Your task to perform on an android device: Search for sushi restaurants on Maps Image 0: 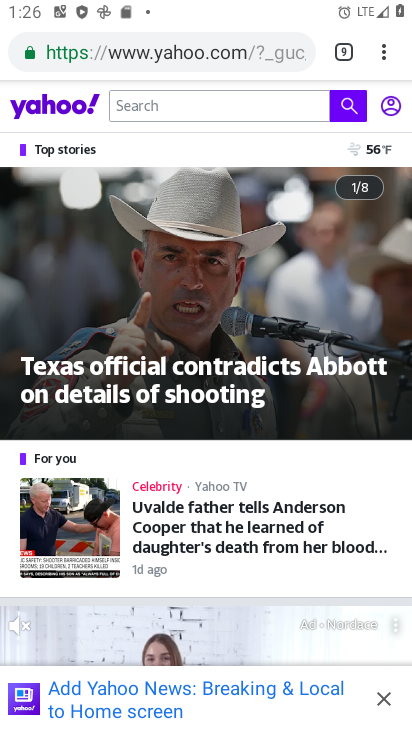
Step 0: drag from (316, 663) to (348, 474)
Your task to perform on an android device: Search for sushi restaurants on Maps Image 1: 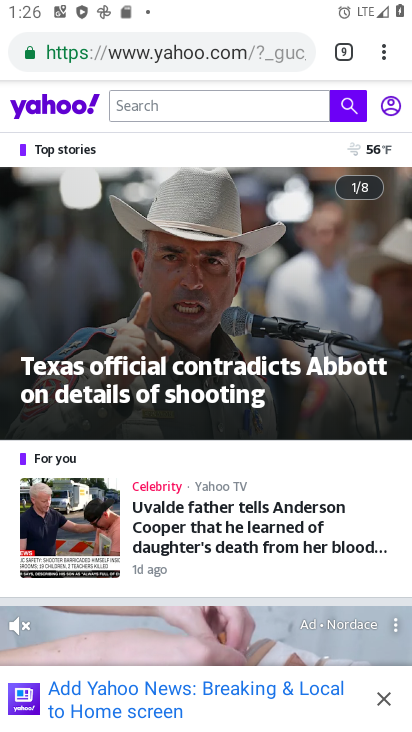
Step 1: press home button
Your task to perform on an android device: Search for sushi restaurants on Maps Image 2: 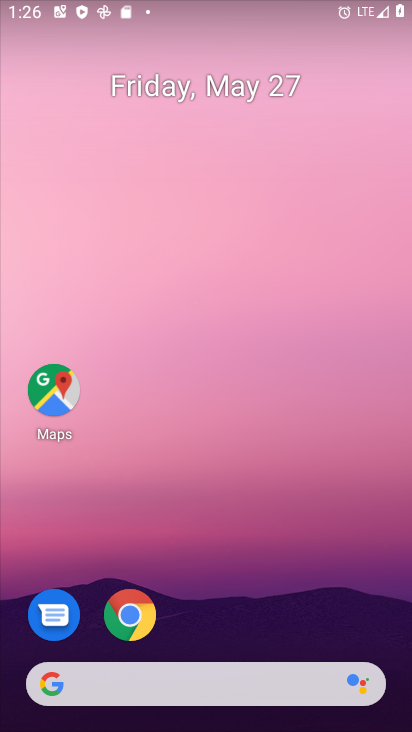
Step 2: drag from (258, 639) to (272, 12)
Your task to perform on an android device: Search for sushi restaurants on Maps Image 3: 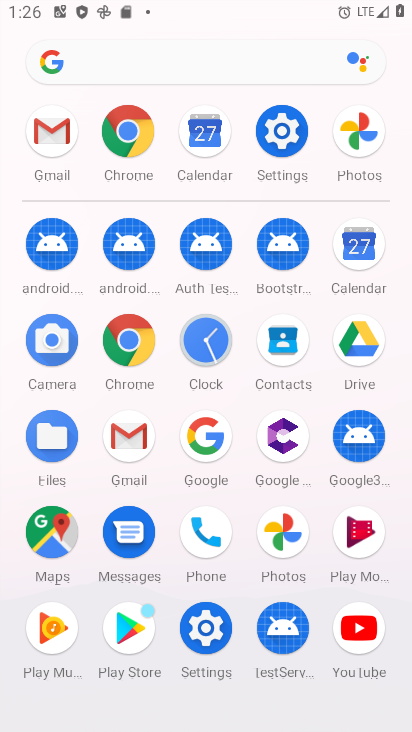
Step 3: click (64, 533)
Your task to perform on an android device: Search for sushi restaurants on Maps Image 4: 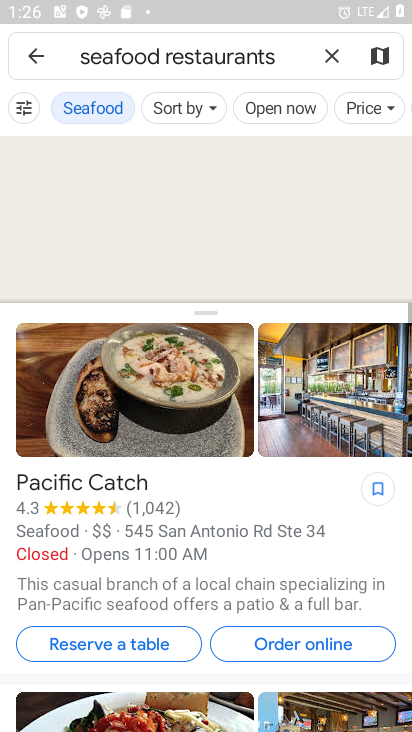
Step 4: click (329, 53)
Your task to perform on an android device: Search for sushi restaurants on Maps Image 5: 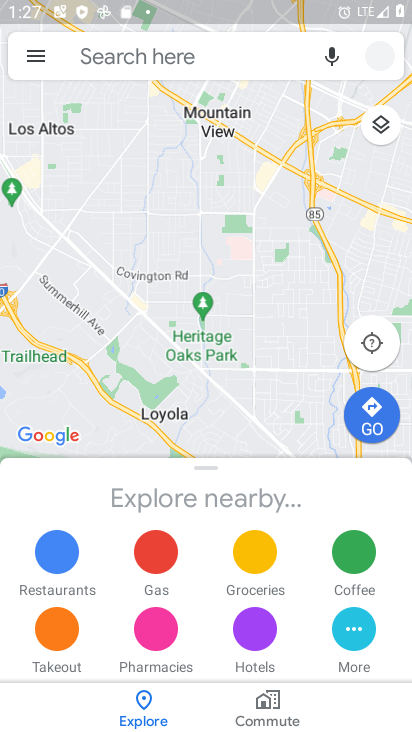
Step 5: click (275, 57)
Your task to perform on an android device: Search for sushi restaurants on Maps Image 6: 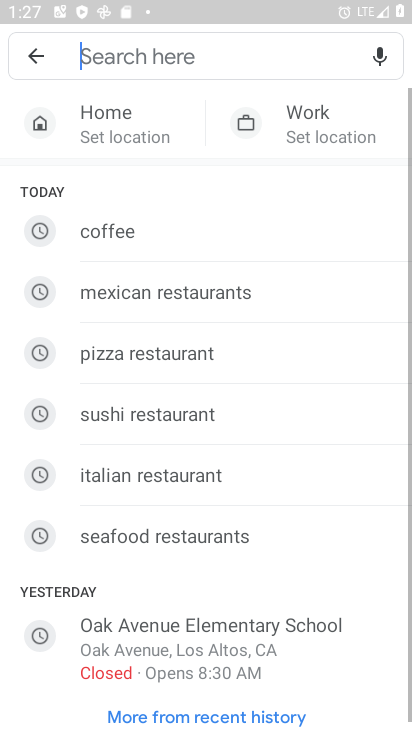
Step 6: click (241, 57)
Your task to perform on an android device: Search for sushi restaurants on Maps Image 7: 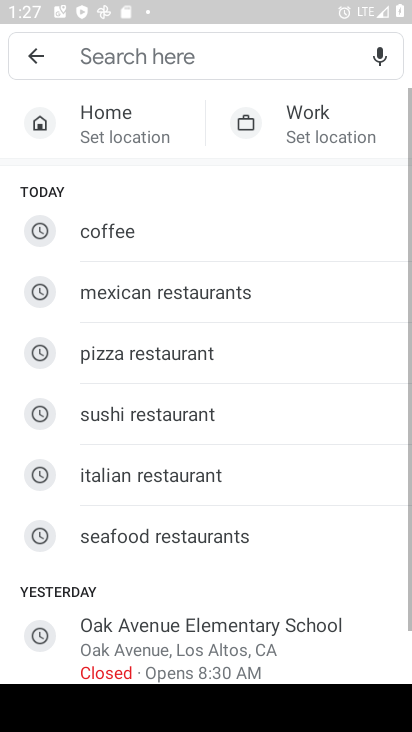
Step 7: click (170, 413)
Your task to perform on an android device: Search for sushi restaurants on Maps Image 8: 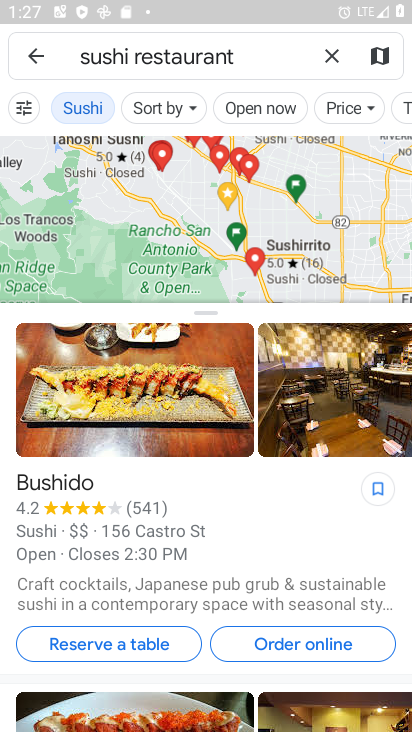
Step 8: task complete